Your task to perform on an android device: Do I have any events today? Image 0: 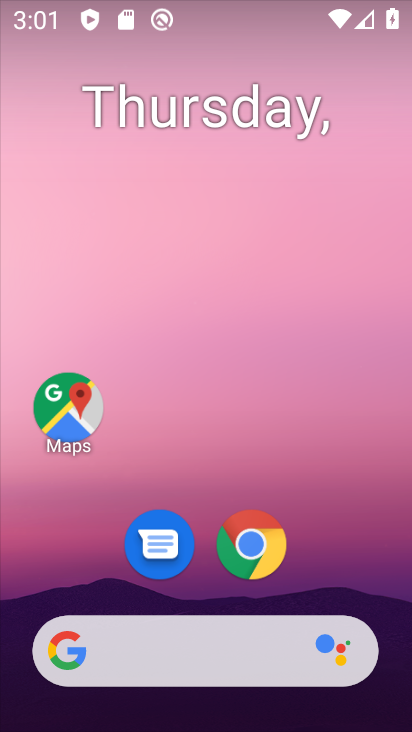
Step 0: drag from (327, 563) to (282, 16)
Your task to perform on an android device: Do I have any events today? Image 1: 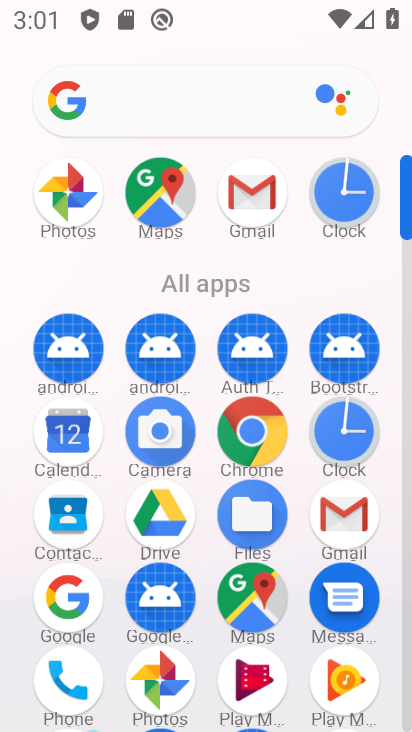
Step 1: click (76, 442)
Your task to perform on an android device: Do I have any events today? Image 2: 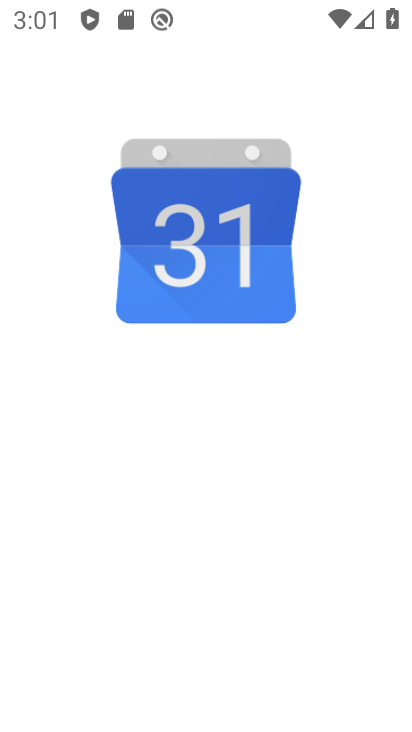
Step 2: click (63, 422)
Your task to perform on an android device: Do I have any events today? Image 3: 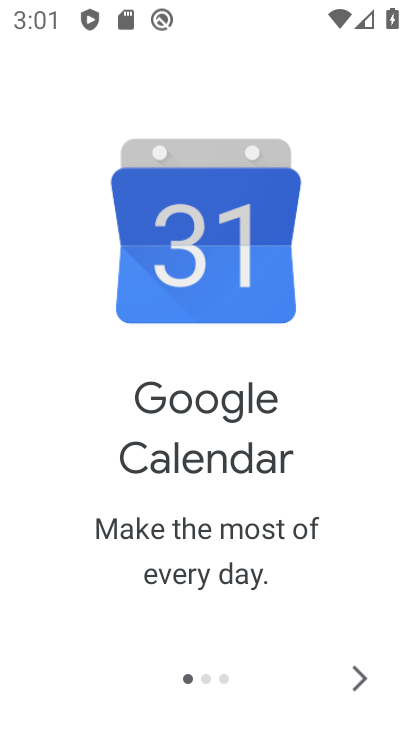
Step 3: click (356, 676)
Your task to perform on an android device: Do I have any events today? Image 4: 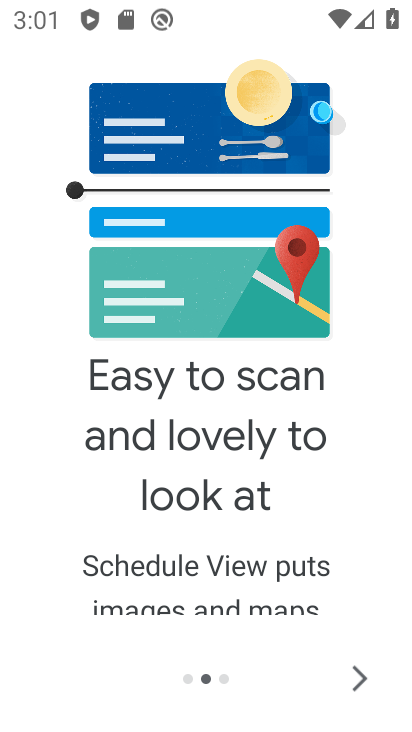
Step 4: click (356, 676)
Your task to perform on an android device: Do I have any events today? Image 5: 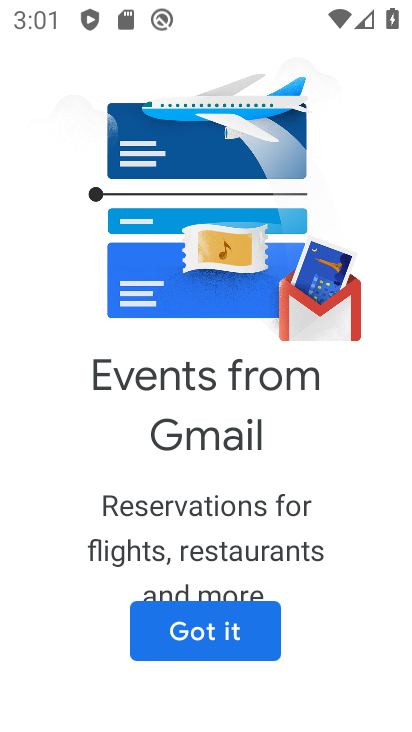
Step 5: click (191, 627)
Your task to perform on an android device: Do I have any events today? Image 6: 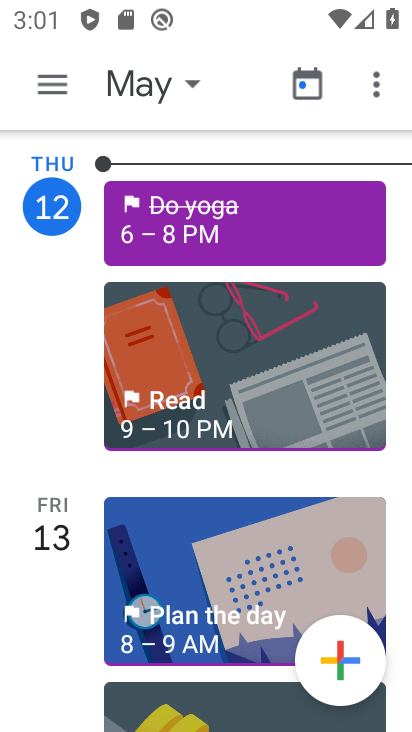
Step 6: click (60, 81)
Your task to perform on an android device: Do I have any events today? Image 7: 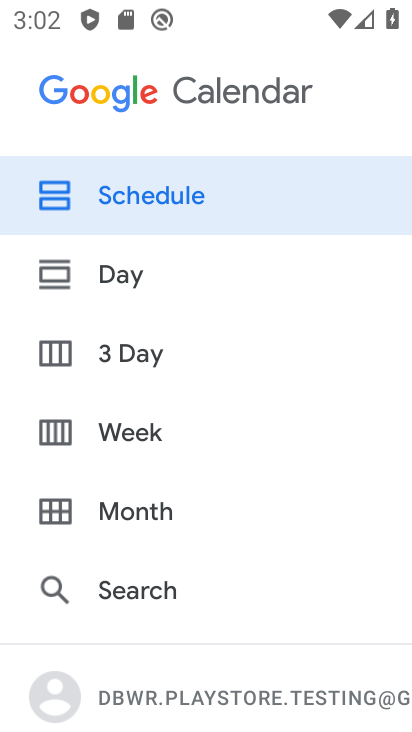
Step 7: click (128, 211)
Your task to perform on an android device: Do I have any events today? Image 8: 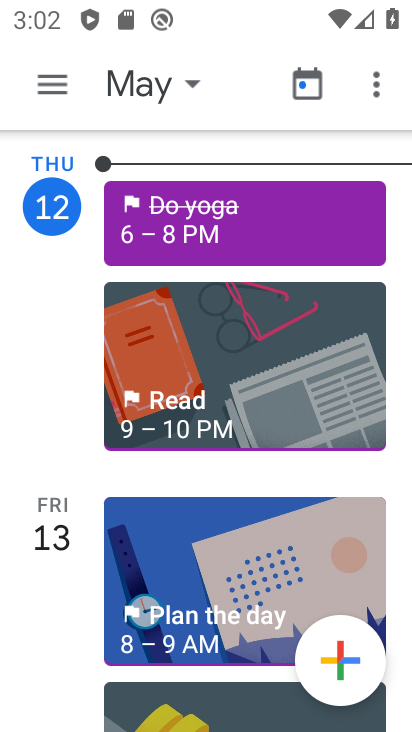
Step 8: task complete